Your task to perform on an android device: Open Google Maps and go to "Timeline" Image 0: 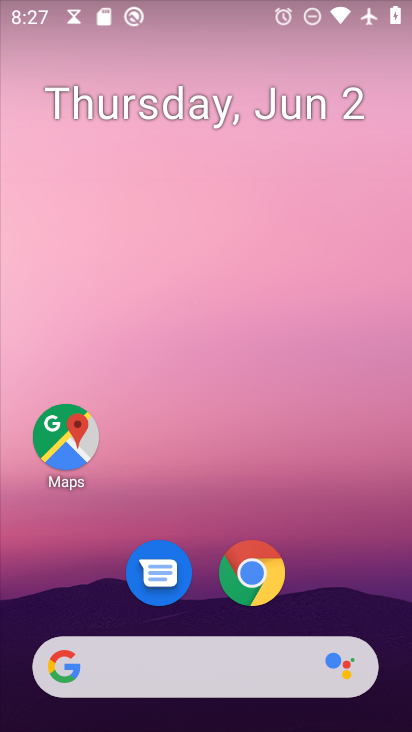
Step 0: click (71, 440)
Your task to perform on an android device: Open Google Maps and go to "Timeline" Image 1: 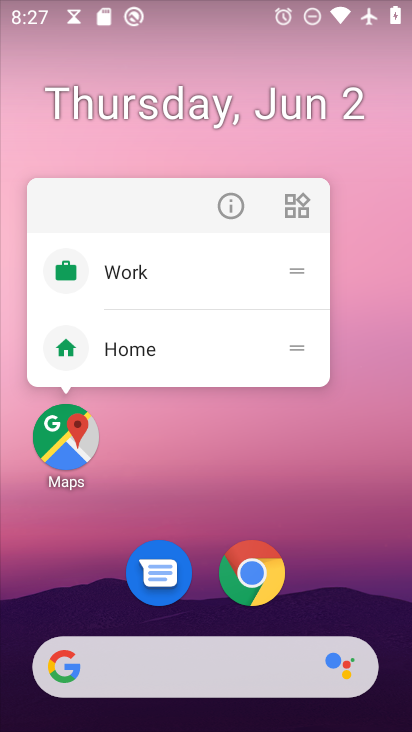
Step 1: click (63, 445)
Your task to perform on an android device: Open Google Maps and go to "Timeline" Image 2: 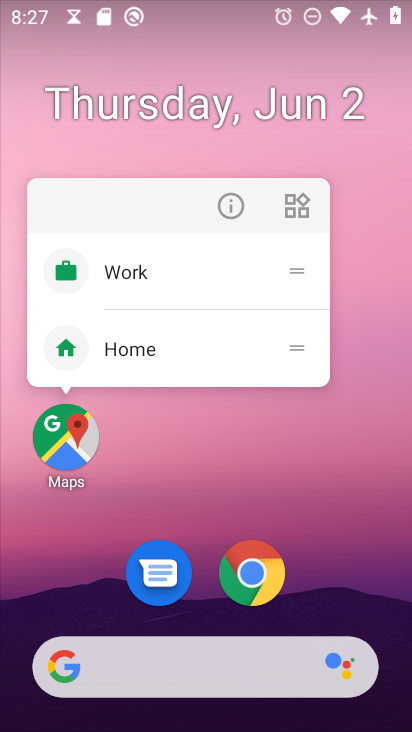
Step 2: click (63, 446)
Your task to perform on an android device: Open Google Maps and go to "Timeline" Image 3: 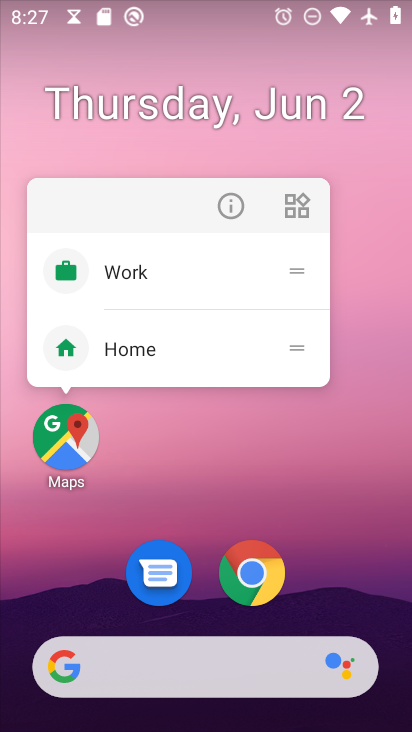
Step 3: click (63, 446)
Your task to perform on an android device: Open Google Maps and go to "Timeline" Image 4: 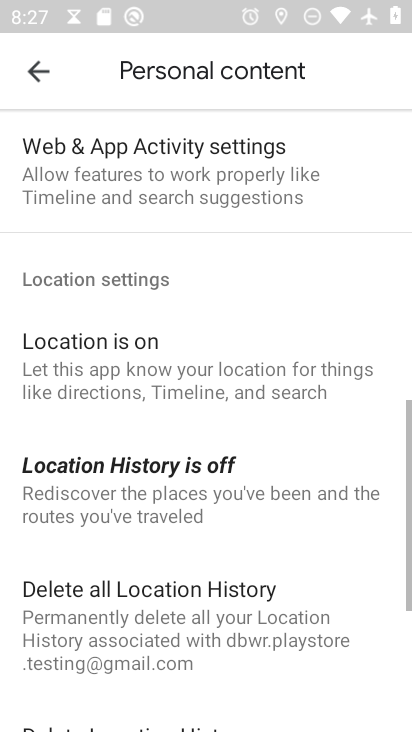
Step 4: click (34, 69)
Your task to perform on an android device: Open Google Maps and go to "Timeline" Image 5: 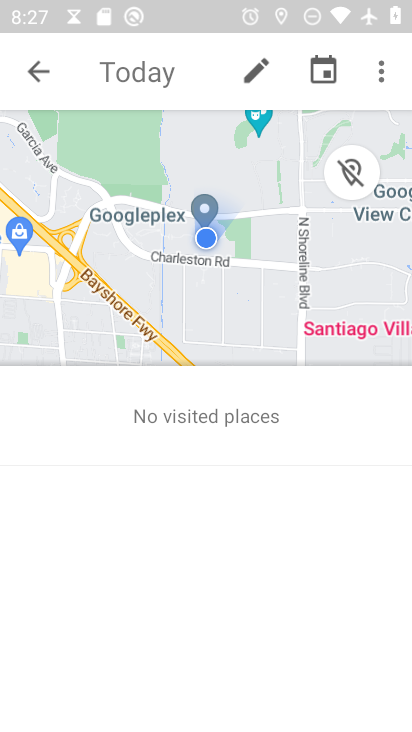
Step 5: task complete